Your task to perform on an android device: show emergency info Image 0: 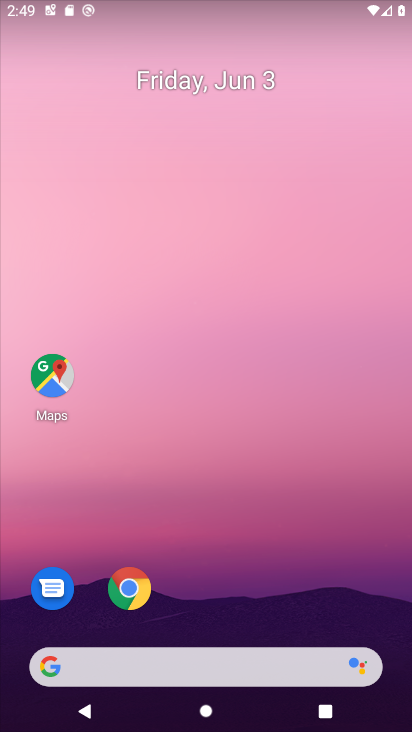
Step 0: drag from (318, 567) to (312, 31)
Your task to perform on an android device: show emergency info Image 1: 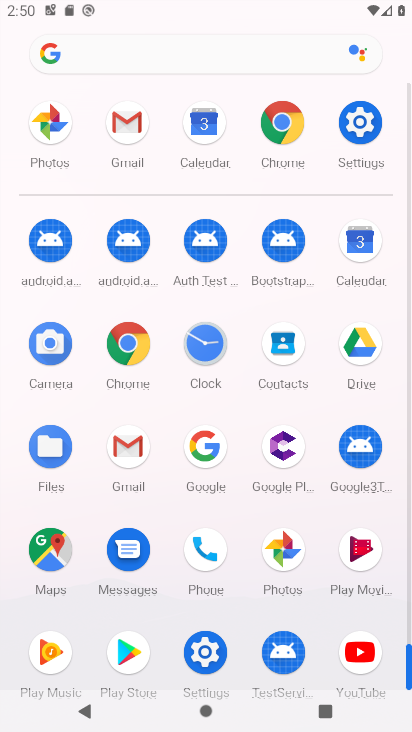
Step 1: click (355, 138)
Your task to perform on an android device: show emergency info Image 2: 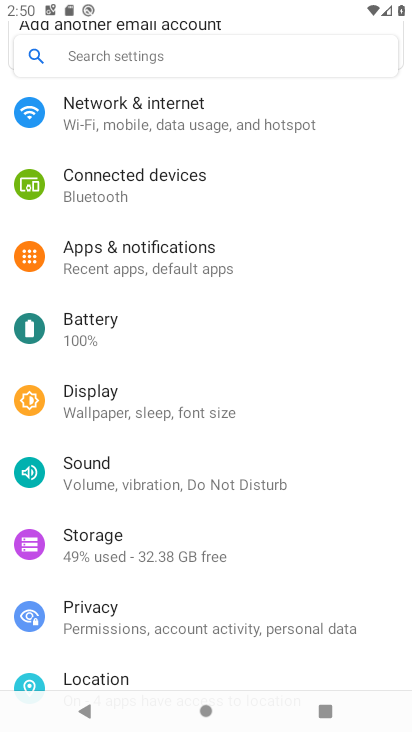
Step 2: drag from (249, 554) to (253, 0)
Your task to perform on an android device: show emergency info Image 3: 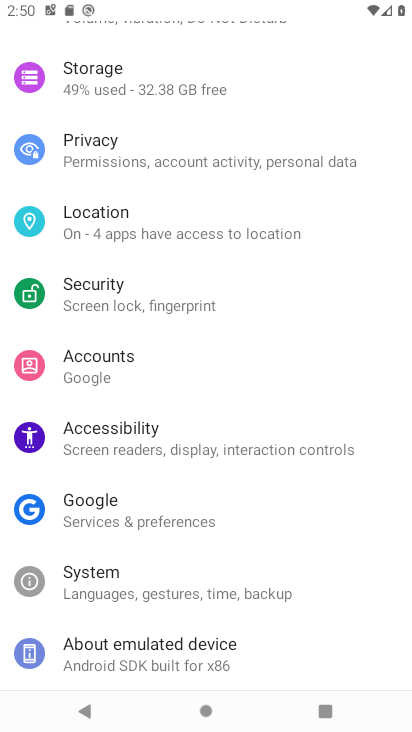
Step 3: drag from (177, 424) to (266, 0)
Your task to perform on an android device: show emergency info Image 4: 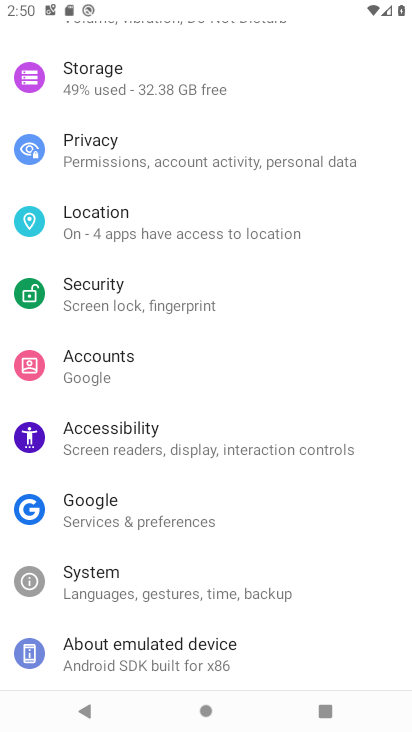
Step 4: click (148, 655)
Your task to perform on an android device: show emergency info Image 5: 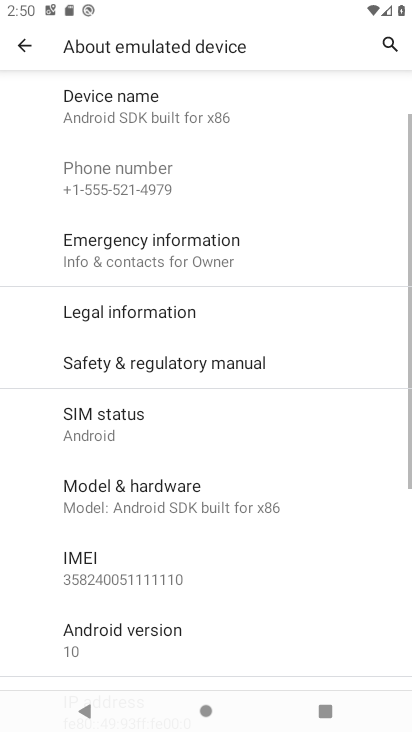
Step 5: click (209, 253)
Your task to perform on an android device: show emergency info Image 6: 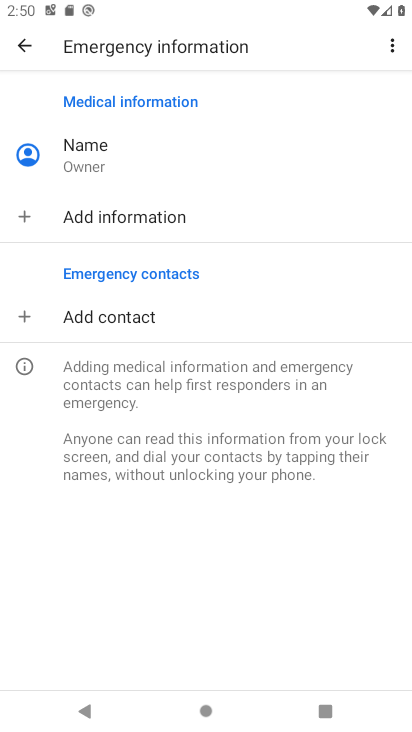
Step 6: task complete